Your task to perform on an android device: turn on bluetooth scan Image 0: 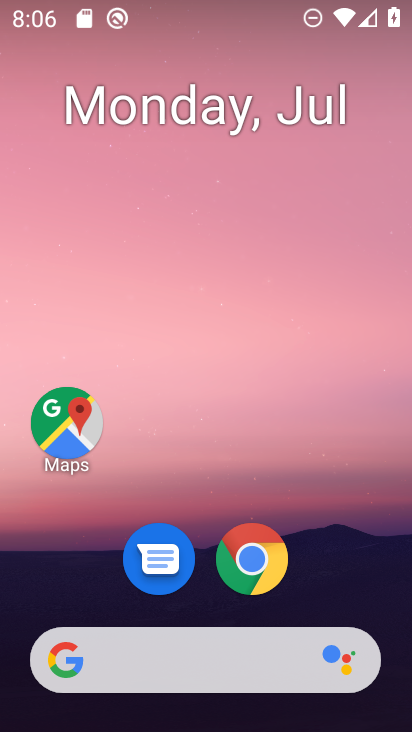
Step 0: drag from (119, 586) to (159, 63)
Your task to perform on an android device: turn on bluetooth scan Image 1: 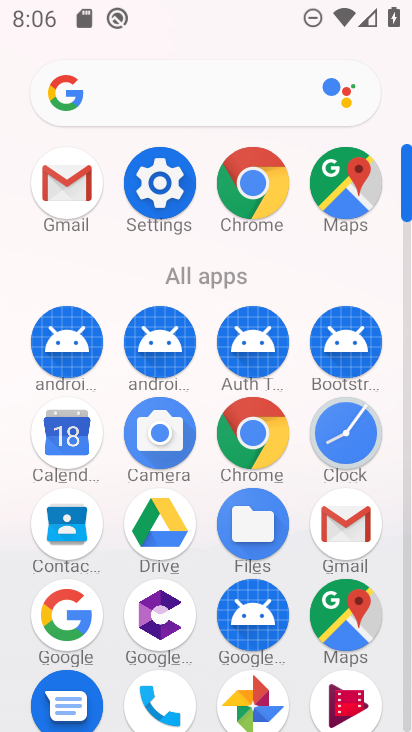
Step 1: click (163, 202)
Your task to perform on an android device: turn on bluetooth scan Image 2: 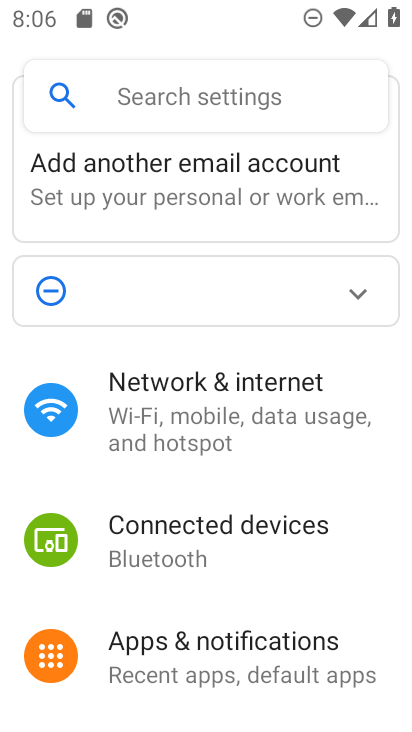
Step 2: click (197, 545)
Your task to perform on an android device: turn on bluetooth scan Image 3: 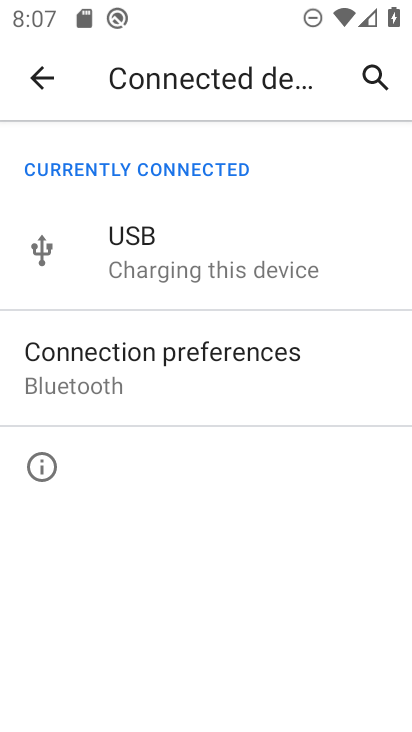
Step 3: click (96, 393)
Your task to perform on an android device: turn on bluetooth scan Image 4: 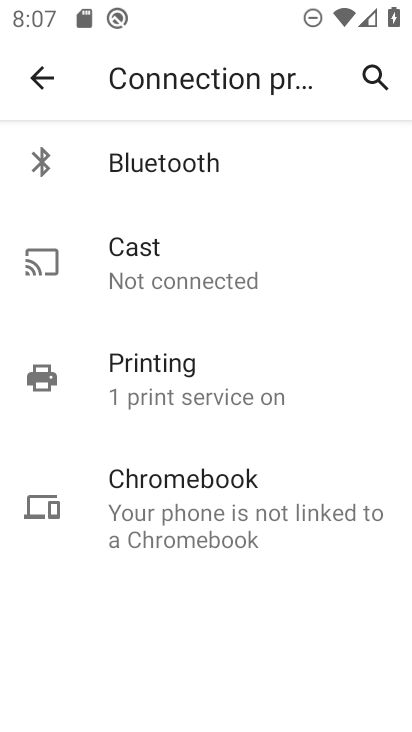
Step 4: click (172, 162)
Your task to perform on an android device: turn on bluetooth scan Image 5: 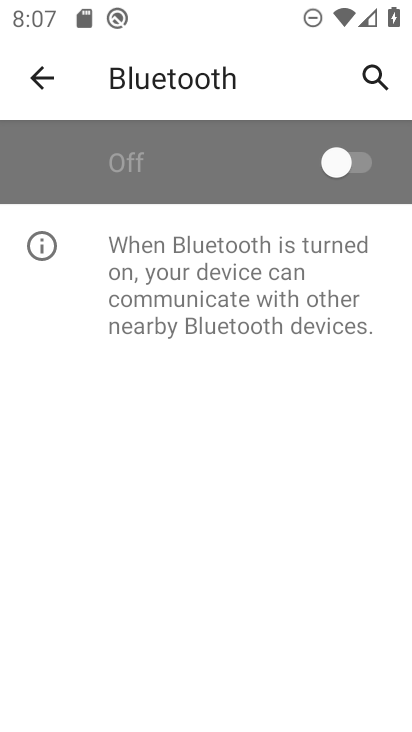
Step 5: click (345, 155)
Your task to perform on an android device: turn on bluetooth scan Image 6: 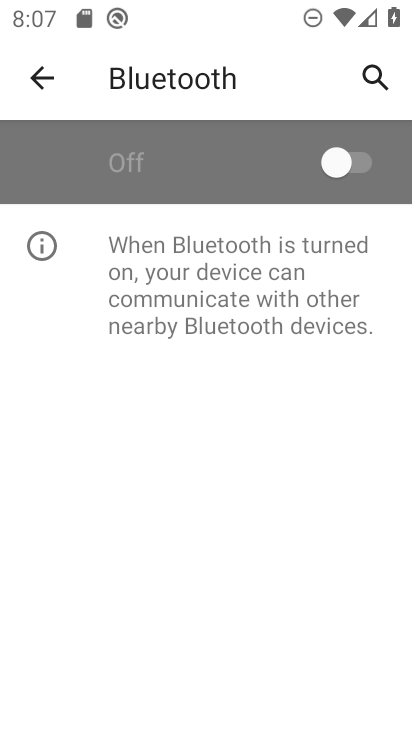
Step 6: task complete